Your task to perform on an android device: see creations saved in the google photos Image 0: 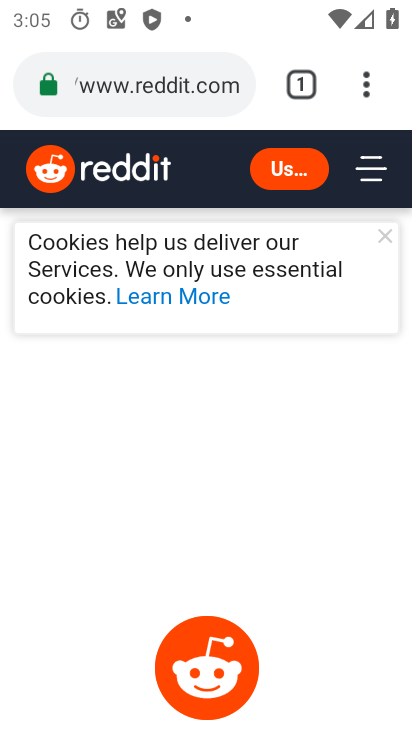
Step 0: press home button
Your task to perform on an android device: see creations saved in the google photos Image 1: 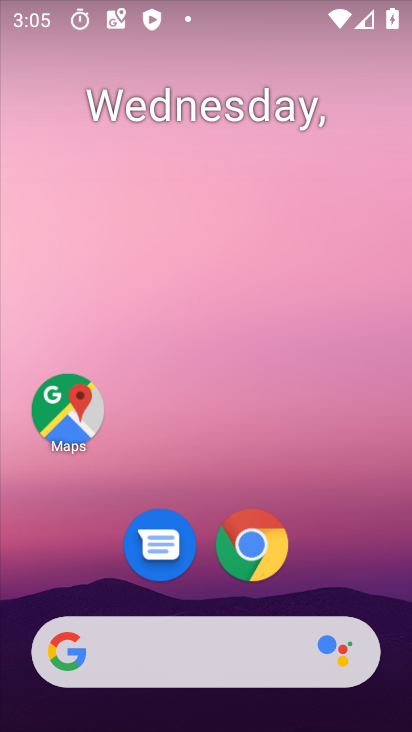
Step 1: drag from (345, 578) to (360, 192)
Your task to perform on an android device: see creations saved in the google photos Image 2: 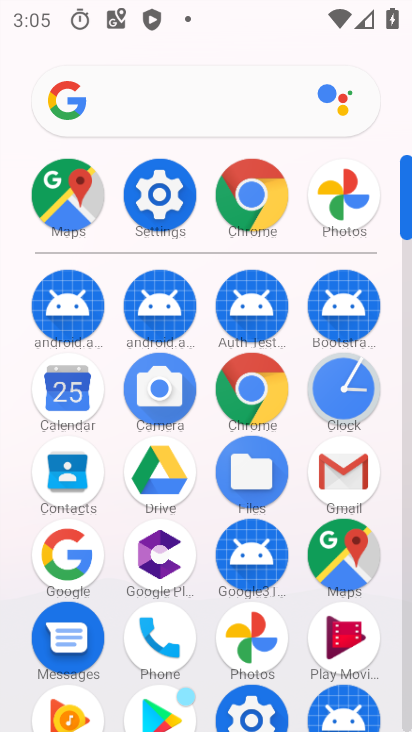
Step 2: click (259, 653)
Your task to perform on an android device: see creations saved in the google photos Image 3: 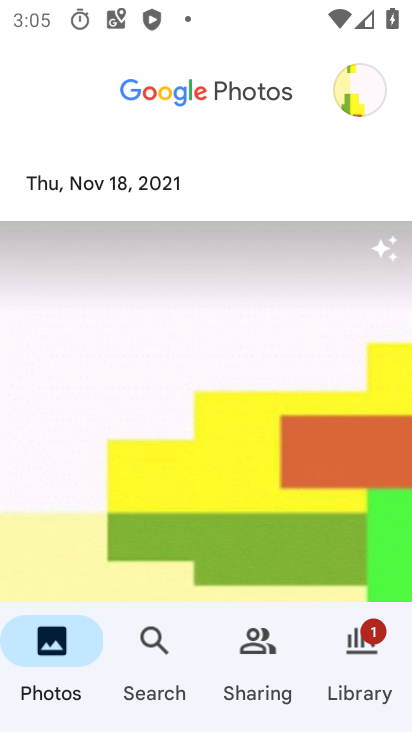
Step 3: click (156, 647)
Your task to perform on an android device: see creations saved in the google photos Image 4: 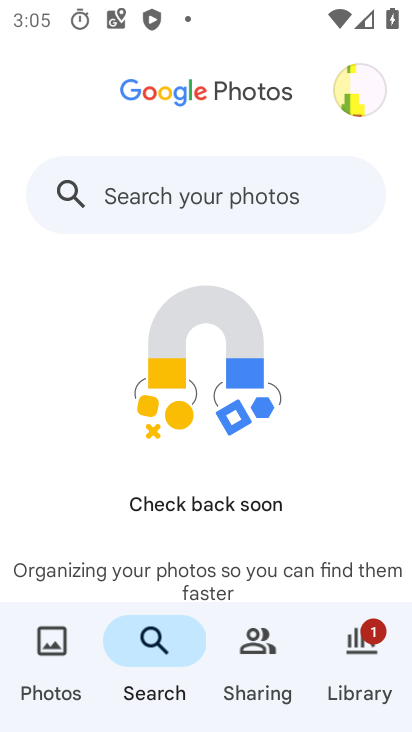
Step 4: click (199, 189)
Your task to perform on an android device: see creations saved in the google photos Image 5: 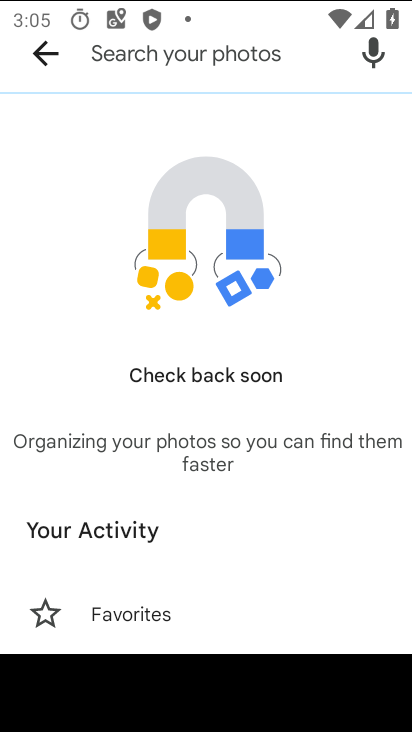
Step 5: type "creations"
Your task to perform on an android device: see creations saved in the google photos Image 6: 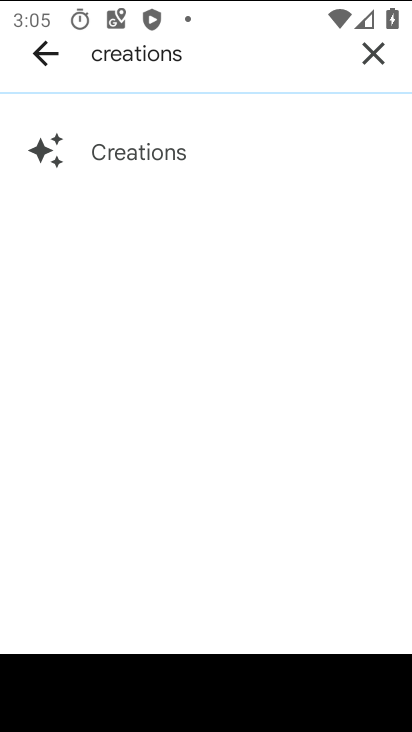
Step 6: click (145, 168)
Your task to perform on an android device: see creations saved in the google photos Image 7: 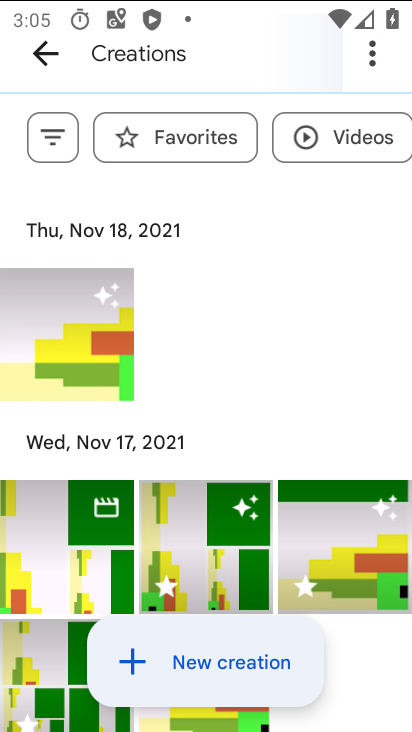
Step 7: task complete